Your task to perform on an android device: add a contact in the contacts app Image 0: 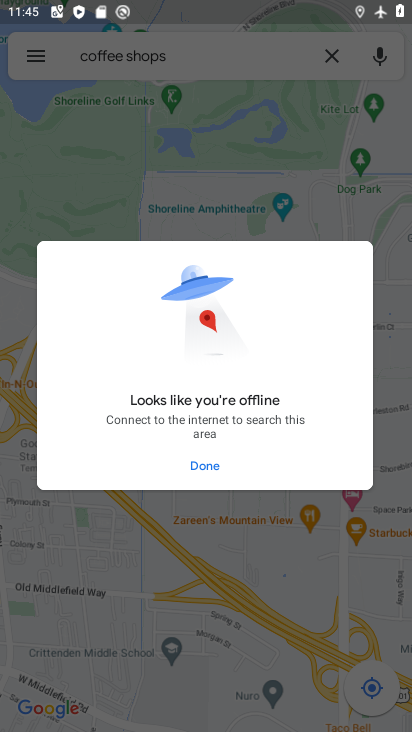
Step 0: press home button
Your task to perform on an android device: add a contact in the contacts app Image 1: 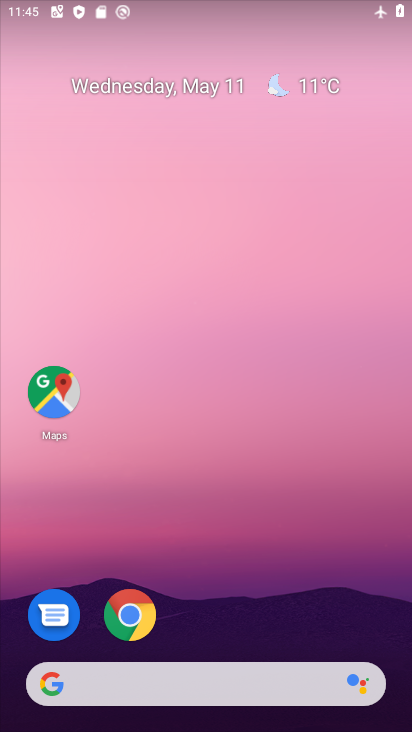
Step 1: drag from (315, 568) to (283, 217)
Your task to perform on an android device: add a contact in the contacts app Image 2: 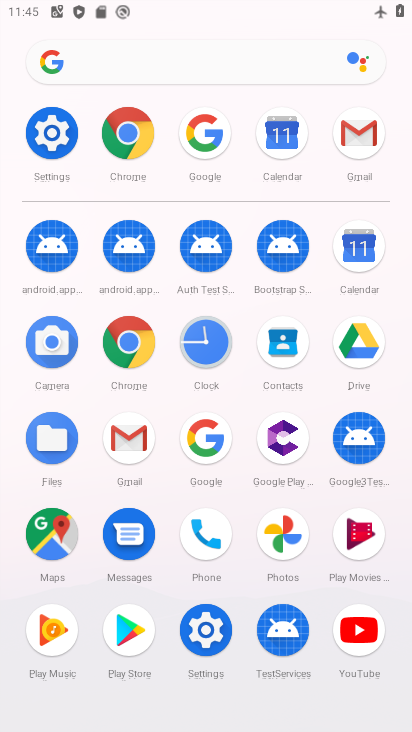
Step 2: click (272, 352)
Your task to perform on an android device: add a contact in the contacts app Image 3: 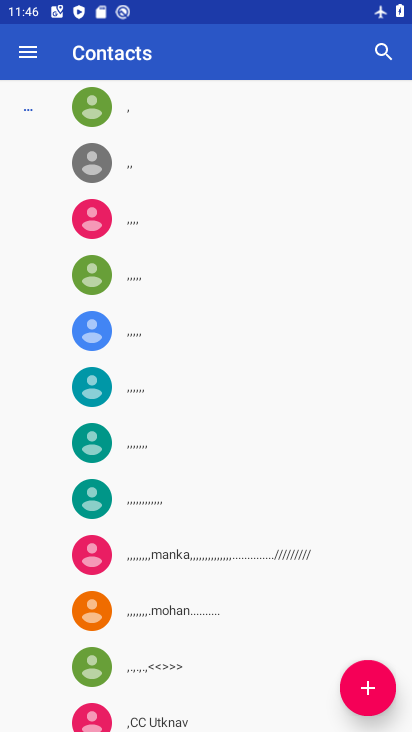
Step 3: click (365, 674)
Your task to perform on an android device: add a contact in the contacts app Image 4: 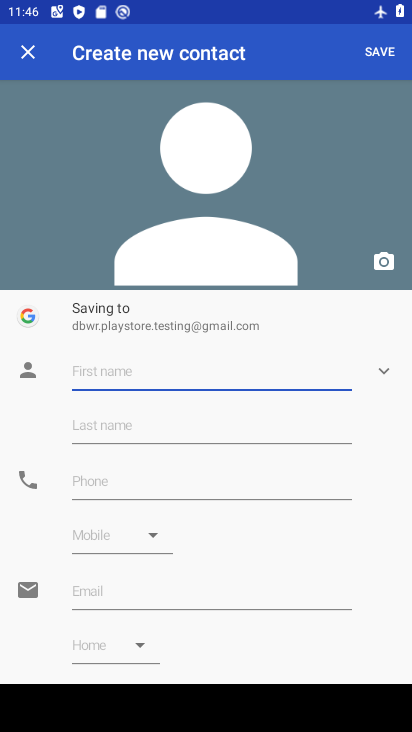
Step 4: type "gcfcf"
Your task to perform on an android device: add a contact in the contacts app Image 5: 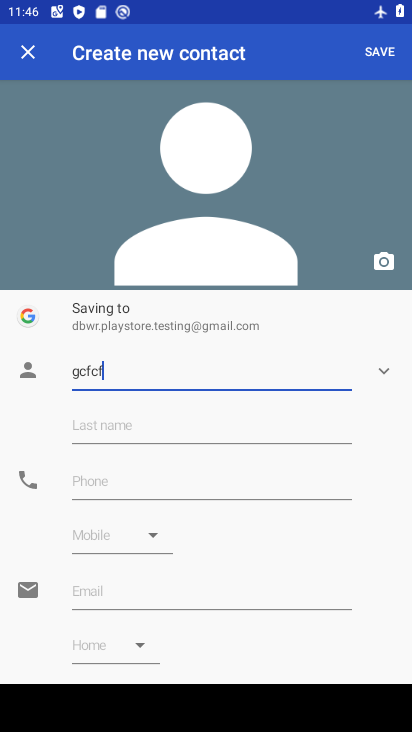
Step 5: type ""
Your task to perform on an android device: add a contact in the contacts app Image 6: 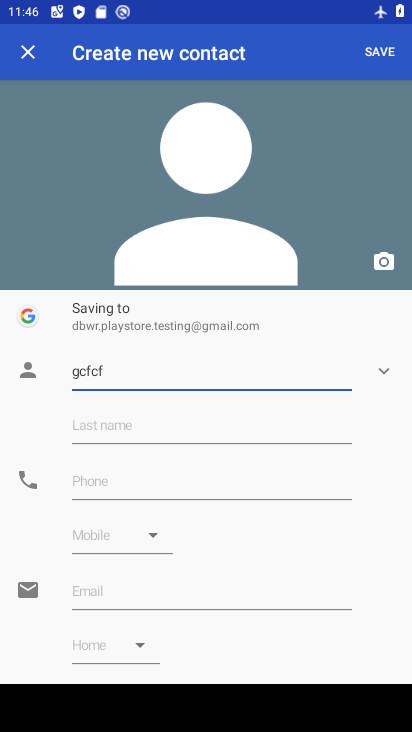
Step 6: click (382, 46)
Your task to perform on an android device: add a contact in the contacts app Image 7: 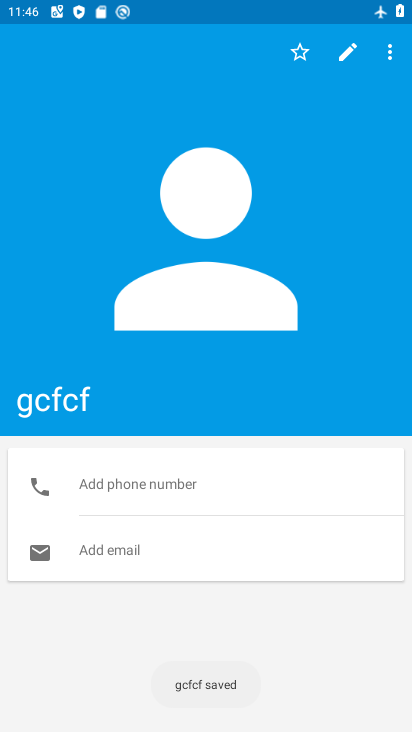
Step 7: task complete